Your task to perform on an android device: toggle wifi Image 0: 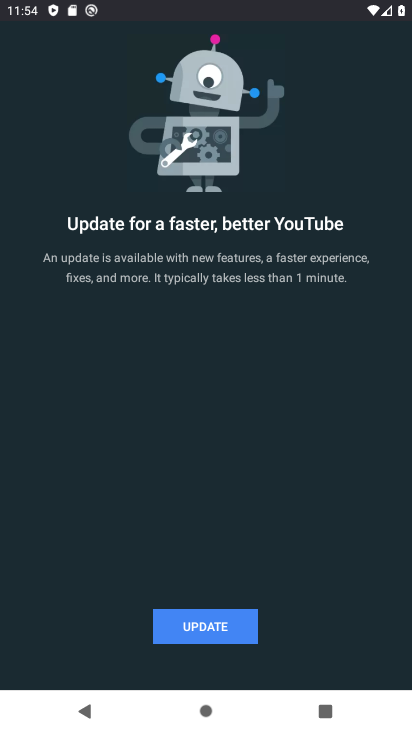
Step 0: press home button
Your task to perform on an android device: toggle wifi Image 1: 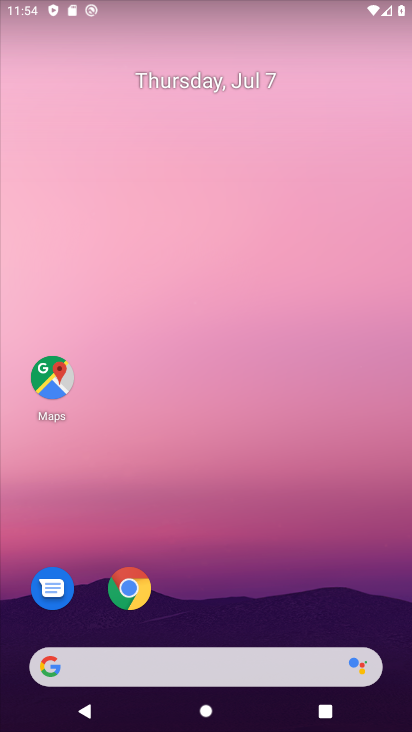
Step 1: drag from (151, 11) to (183, 496)
Your task to perform on an android device: toggle wifi Image 2: 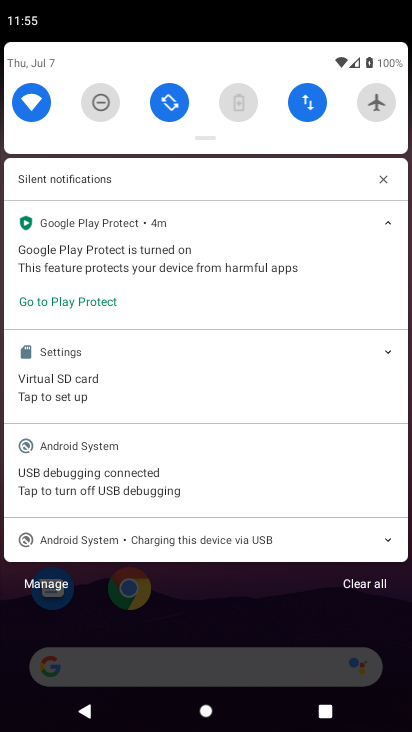
Step 2: click (36, 99)
Your task to perform on an android device: toggle wifi Image 3: 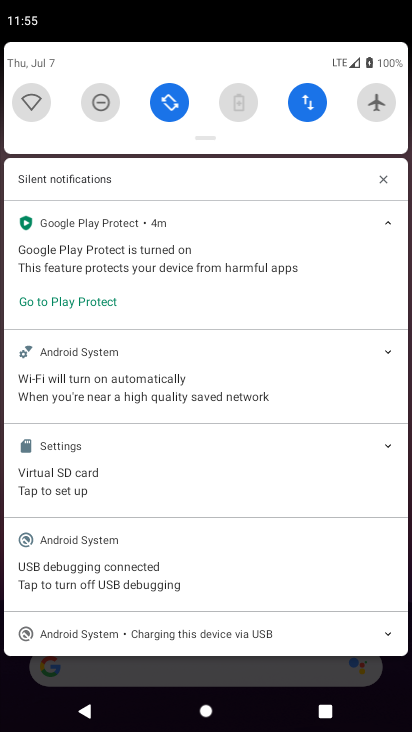
Step 3: task complete